Your task to perform on an android device: toggle priority inbox in the gmail app Image 0: 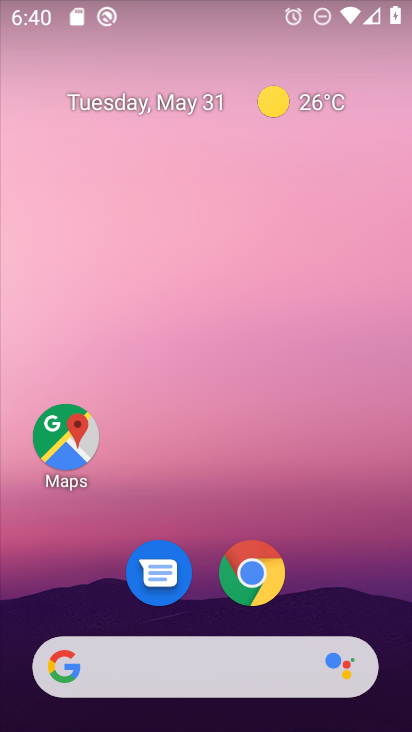
Step 0: drag from (396, 671) to (312, 22)
Your task to perform on an android device: toggle priority inbox in the gmail app Image 1: 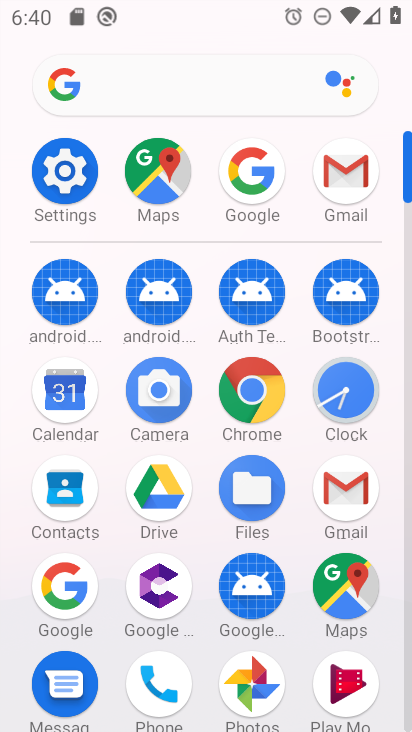
Step 1: click (341, 162)
Your task to perform on an android device: toggle priority inbox in the gmail app Image 2: 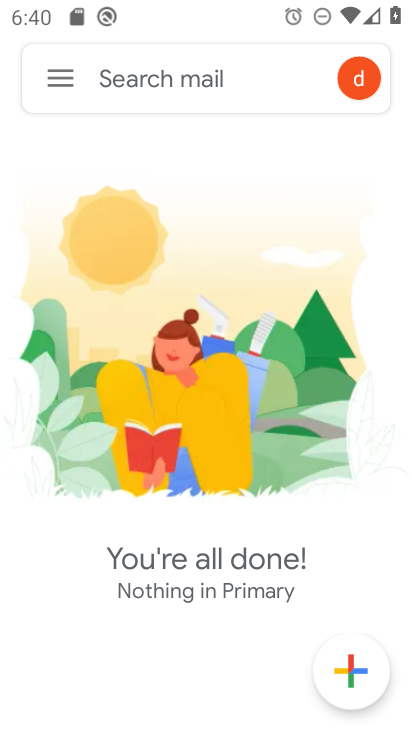
Step 2: click (65, 77)
Your task to perform on an android device: toggle priority inbox in the gmail app Image 3: 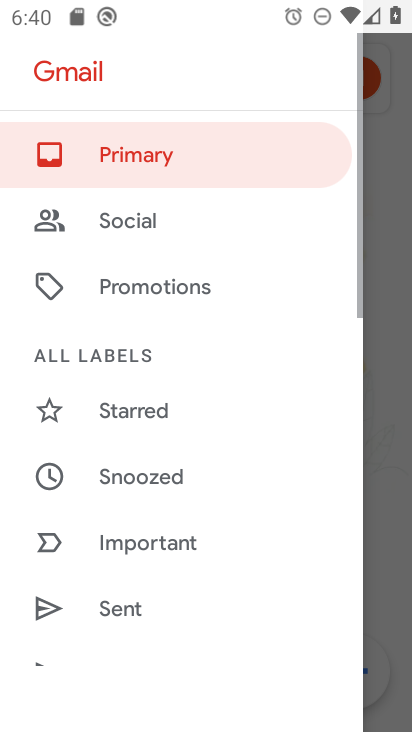
Step 3: drag from (163, 616) to (206, 28)
Your task to perform on an android device: toggle priority inbox in the gmail app Image 4: 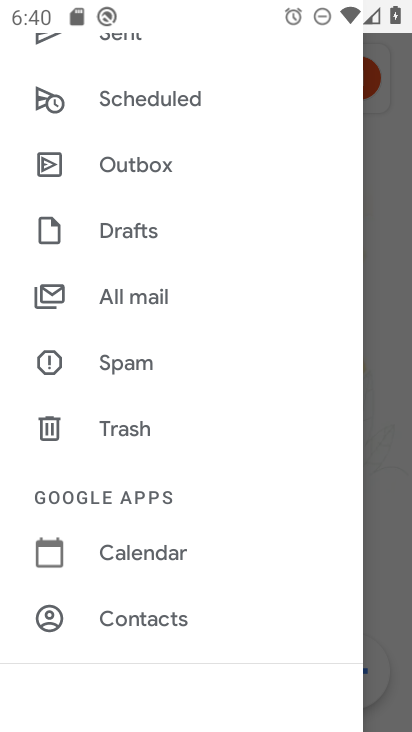
Step 4: drag from (156, 579) to (184, 124)
Your task to perform on an android device: toggle priority inbox in the gmail app Image 5: 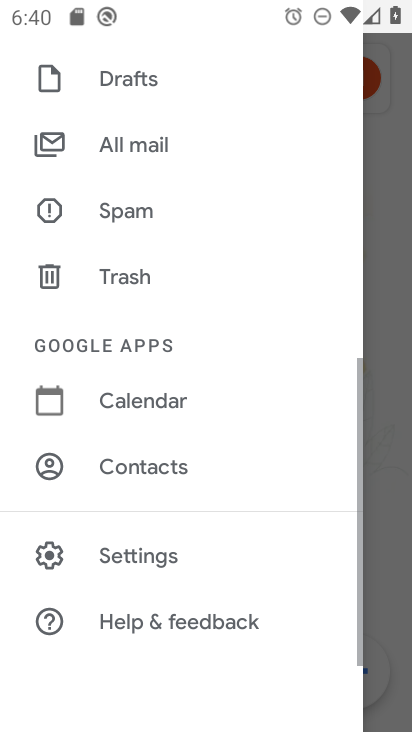
Step 5: click (105, 554)
Your task to perform on an android device: toggle priority inbox in the gmail app Image 6: 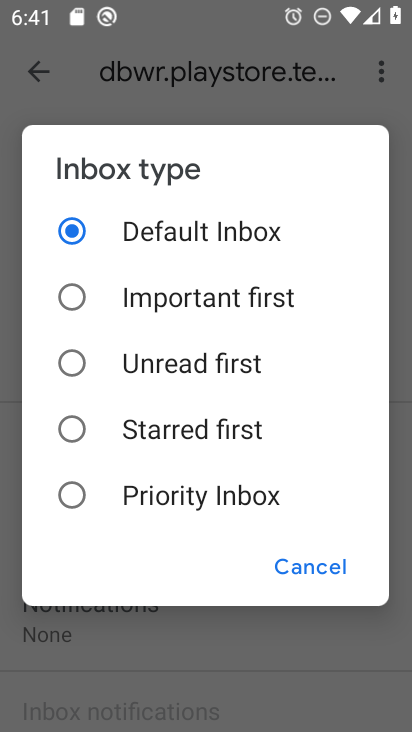
Step 6: task complete